Your task to perform on an android device: empty trash in google photos Image 0: 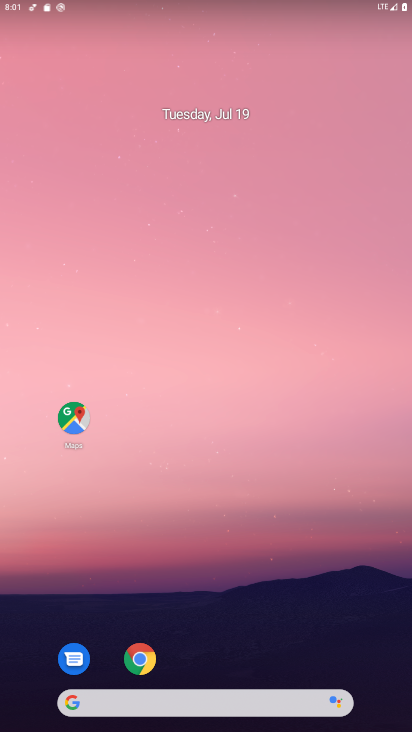
Step 0: drag from (160, 533) to (192, 1)
Your task to perform on an android device: empty trash in google photos Image 1: 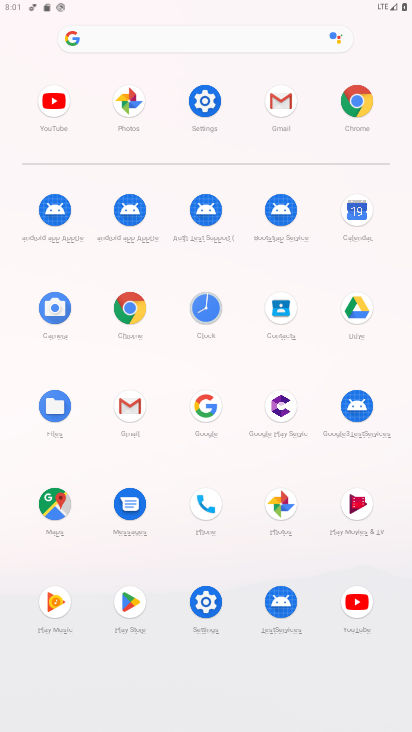
Step 1: click (271, 496)
Your task to perform on an android device: empty trash in google photos Image 2: 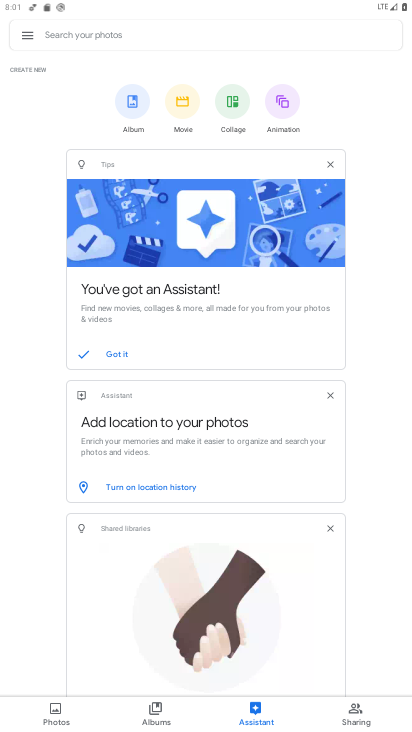
Step 2: click (26, 36)
Your task to perform on an android device: empty trash in google photos Image 3: 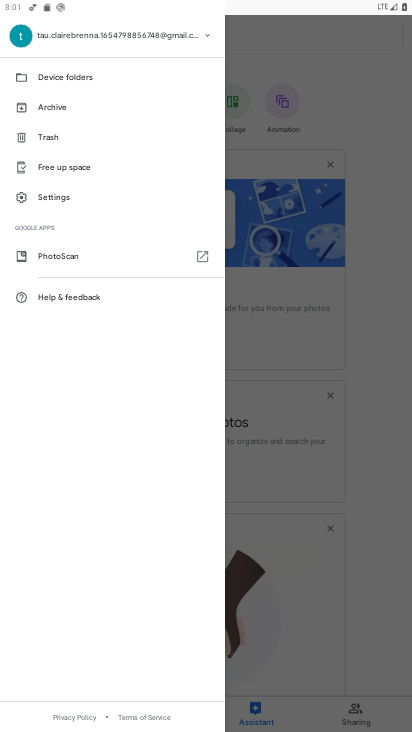
Step 3: click (57, 136)
Your task to perform on an android device: empty trash in google photos Image 4: 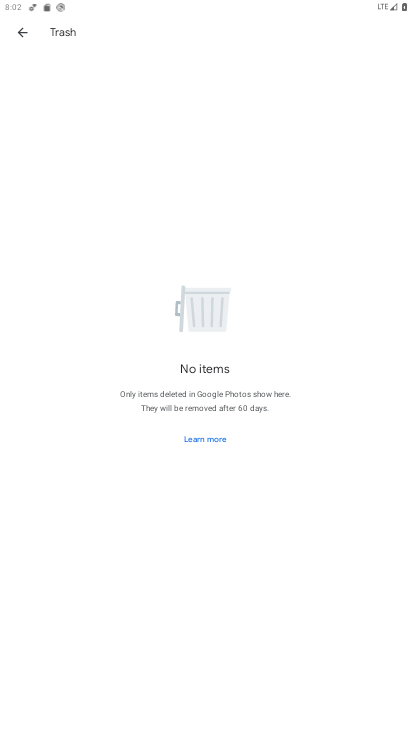
Step 4: task complete